Your task to perform on an android device: Open Android settings Image 0: 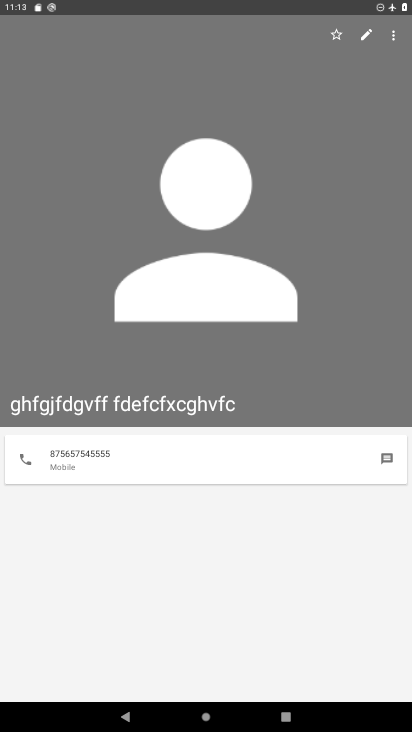
Step 0: press home button
Your task to perform on an android device: Open Android settings Image 1: 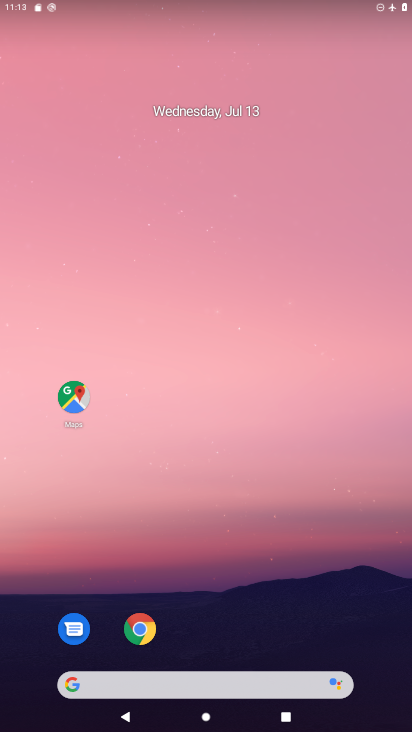
Step 1: drag from (367, 699) to (329, 30)
Your task to perform on an android device: Open Android settings Image 2: 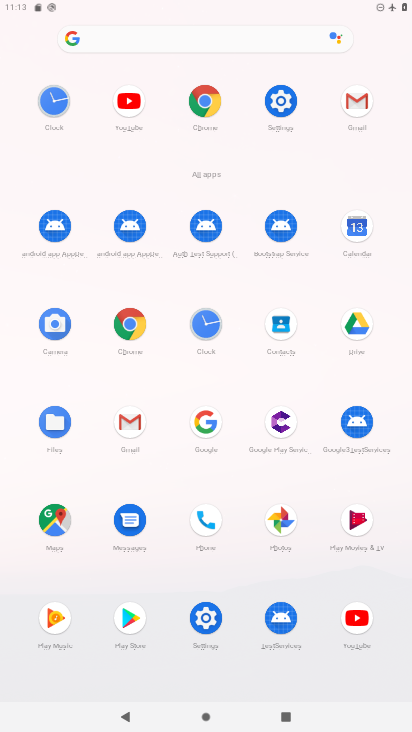
Step 2: click (206, 622)
Your task to perform on an android device: Open Android settings Image 3: 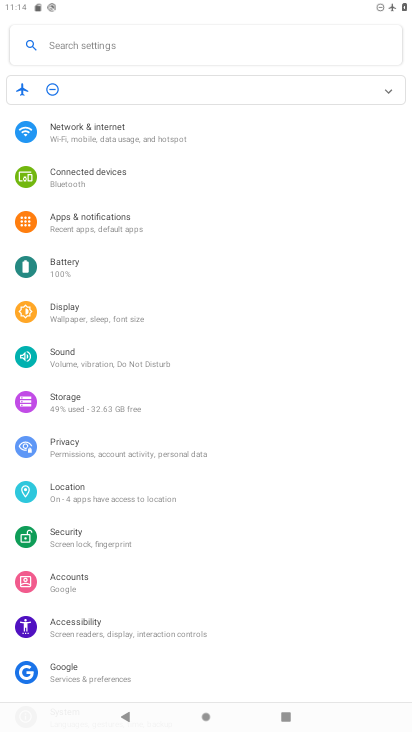
Step 3: task complete